Your task to perform on an android device: Is it going to rain this weekend? Image 0: 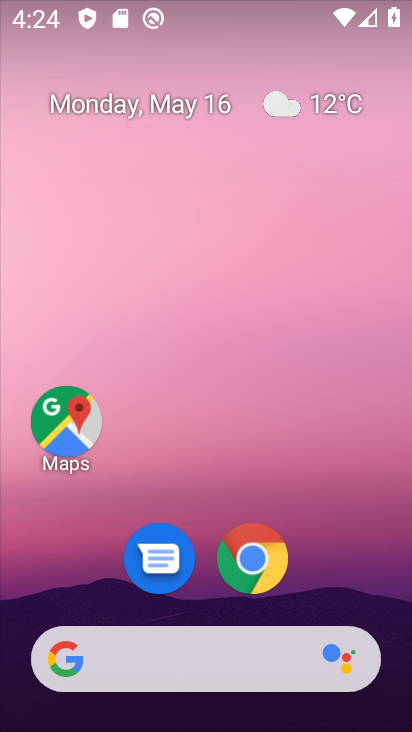
Step 0: click (276, 568)
Your task to perform on an android device: Is it going to rain this weekend? Image 1: 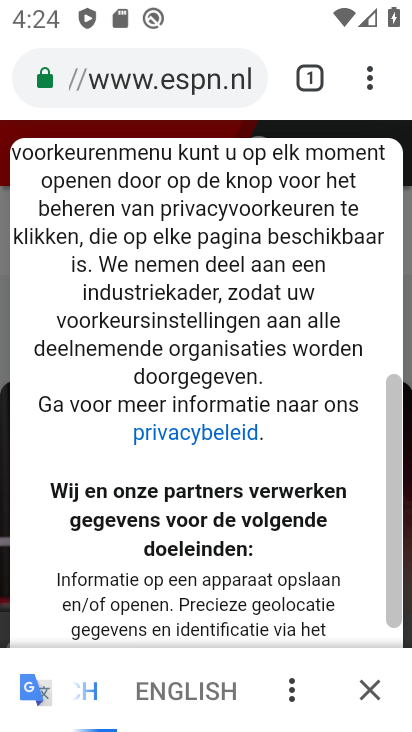
Step 1: click (183, 74)
Your task to perform on an android device: Is it going to rain this weekend? Image 2: 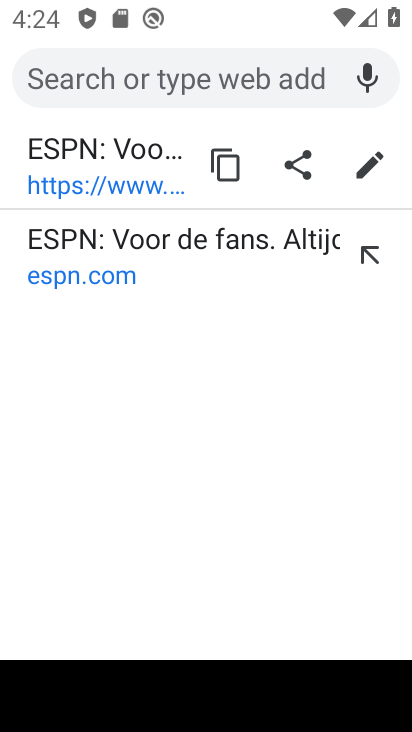
Step 2: type "is it going to rain this weekend"
Your task to perform on an android device: Is it going to rain this weekend? Image 3: 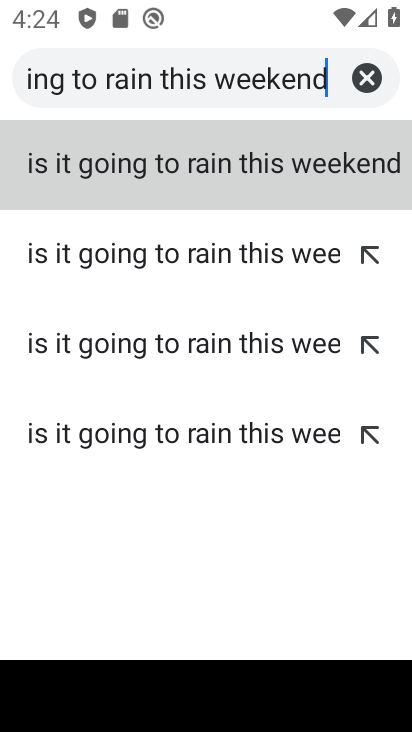
Step 3: click (241, 165)
Your task to perform on an android device: Is it going to rain this weekend? Image 4: 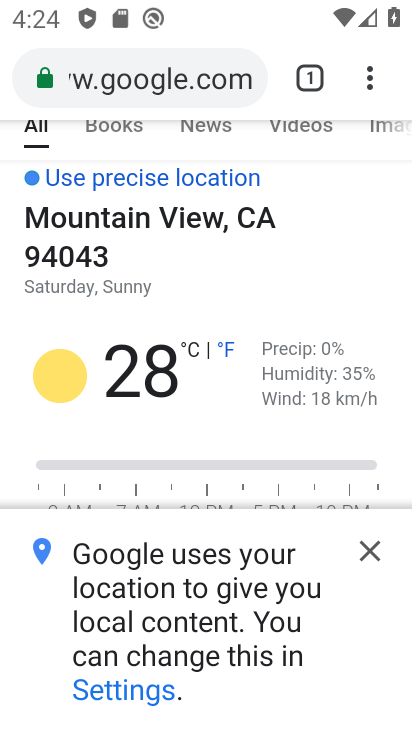
Step 4: task complete